Your task to perform on an android device: search for starred emails in the gmail app Image 0: 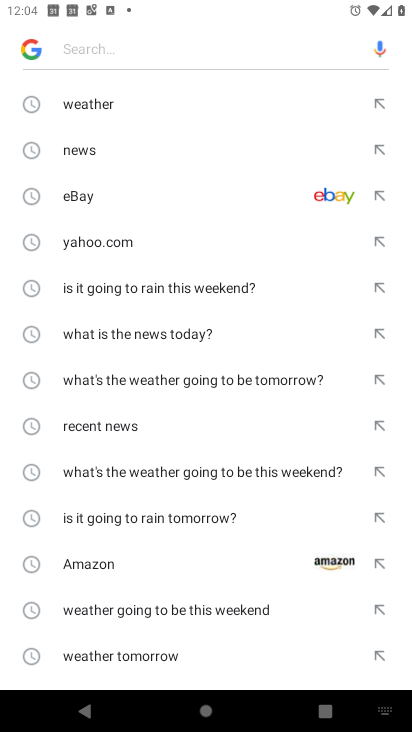
Step 0: press home button
Your task to perform on an android device: search for starred emails in the gmail app Image 1: 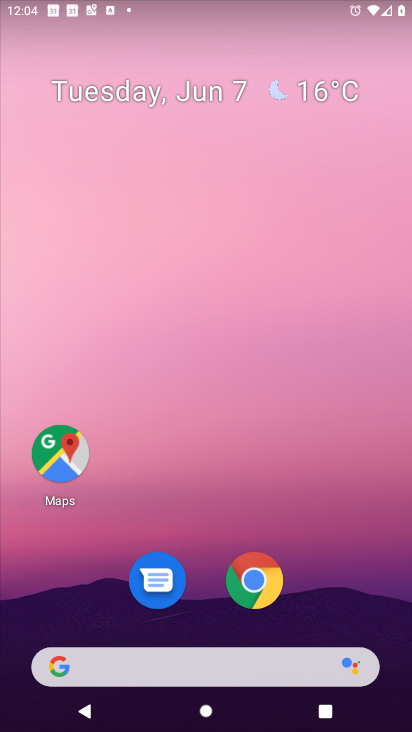
Step 1: drag from (340, 542) to (394, 58)
Your task to perform on an android device: search for starred emails in the gmail app Image 2: 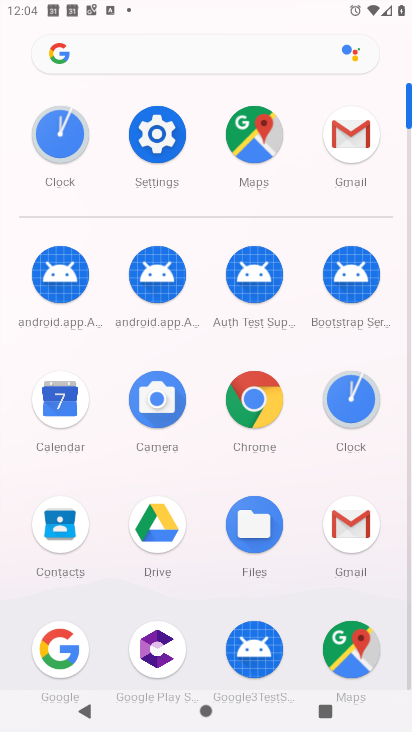
Step 2: click (333, 132)
Your task to perform on an android device: search for starred emails in the gmail app Image 3: 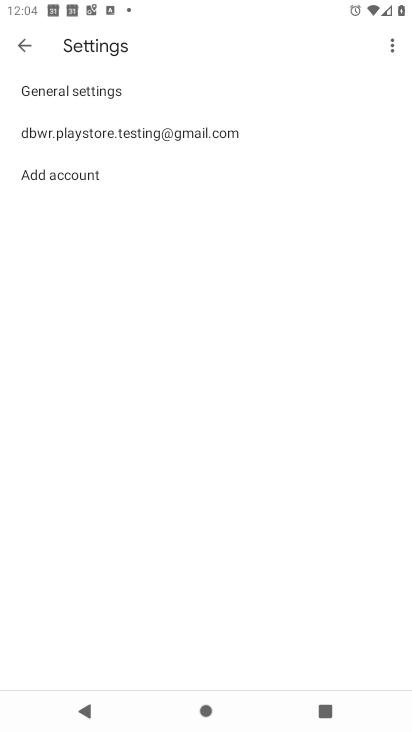
Step 3: click (30, 51)
Your task to perform on an android device: search for starred emails in the gmail app Image 4: 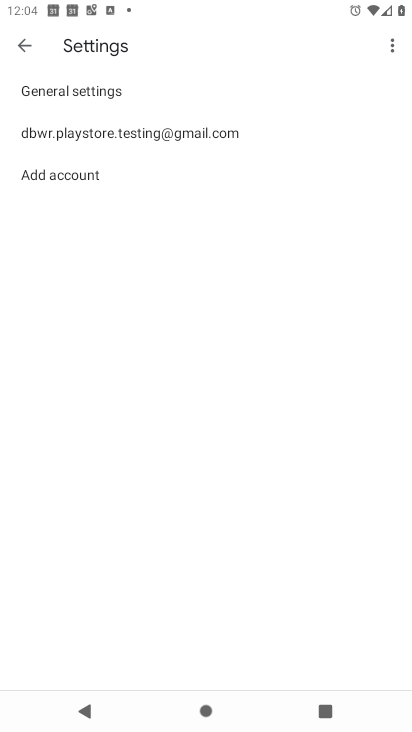
Step 4: click (30, 51)
Your task to perform on an android device: search for starred emails in the gmail app Image 5: 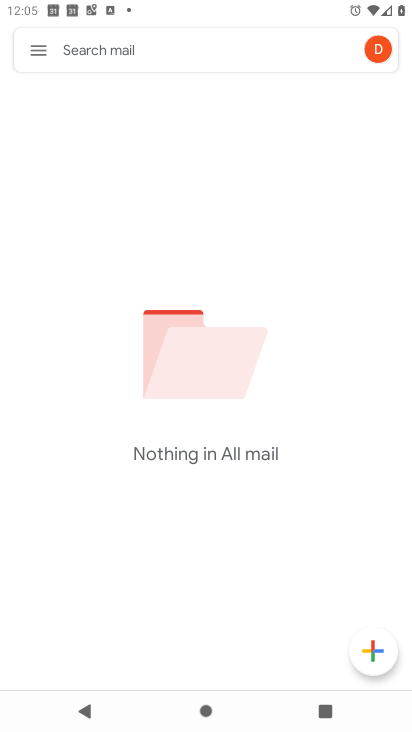
Step 5: click (29, 51)
Your task to perform on an android device: search for starred emails in the gmail app Image 6: 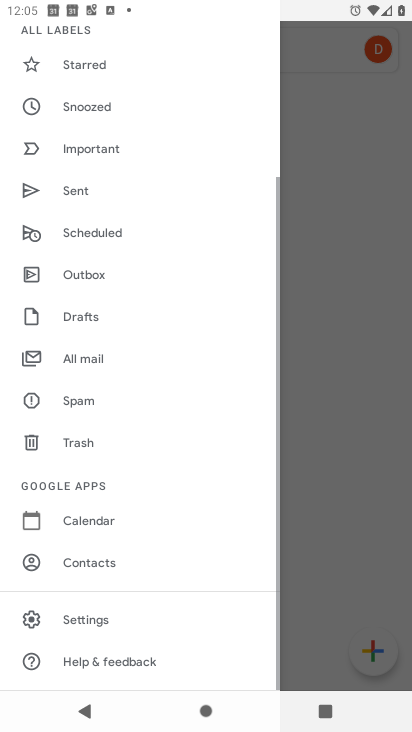
Step 6: drag from (59, 88) to (95, 570)
Your task to perform on an android device: search for starred emails in the gmail app Image 7: 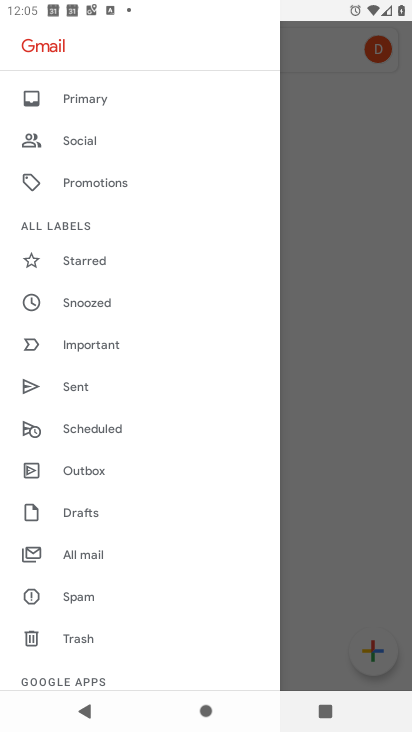
Step 7: click (115, 266)
Your task to perform on an android device: search for starred emails in the gmail app Image 8: 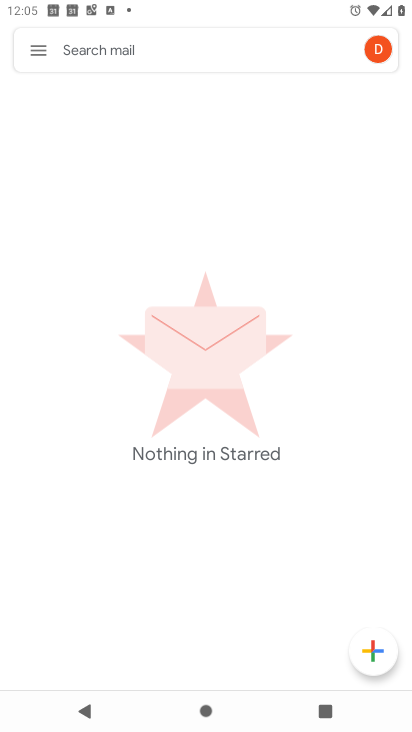
Step 8: task complete